Your task to perform on an android device: Go to wifi settings Image 0: 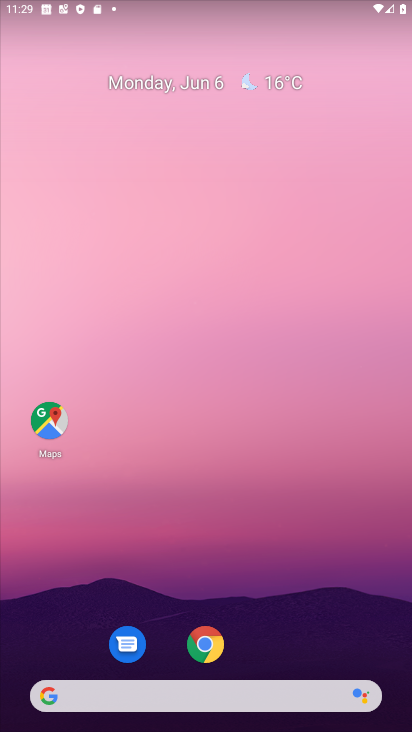
Step 0: drag from (289, 628) to (148, 171)
Your task to perform on an android device: Go to wifi settings Image 1: 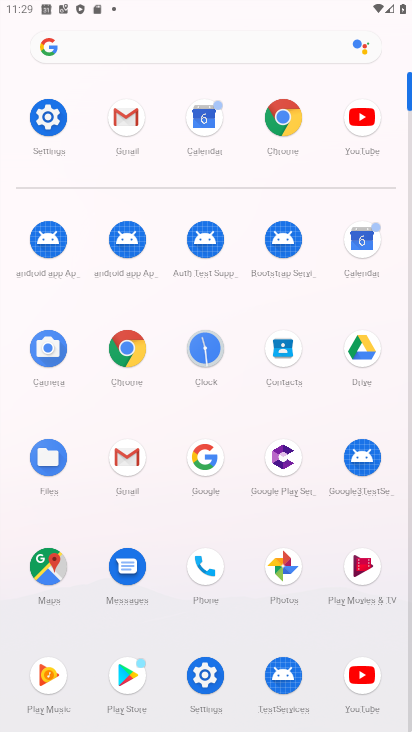
Step 1: click (43, 122)
Your task to perform on an android device: Go to wifi settings Image 2: 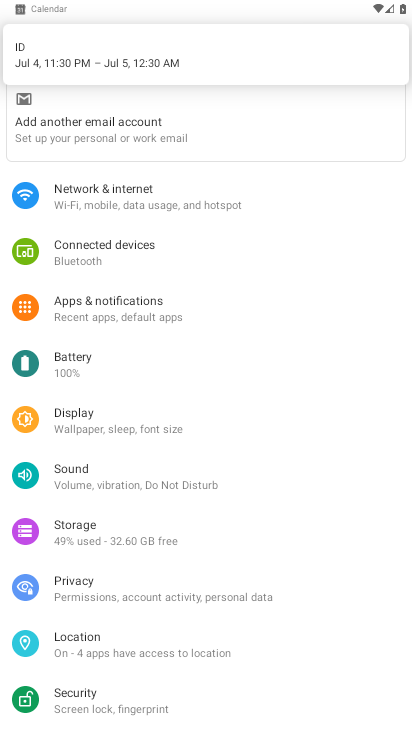
Step 2: click (151, 207)
Your task to perform on an android device: Go to wifi settings Image 3: 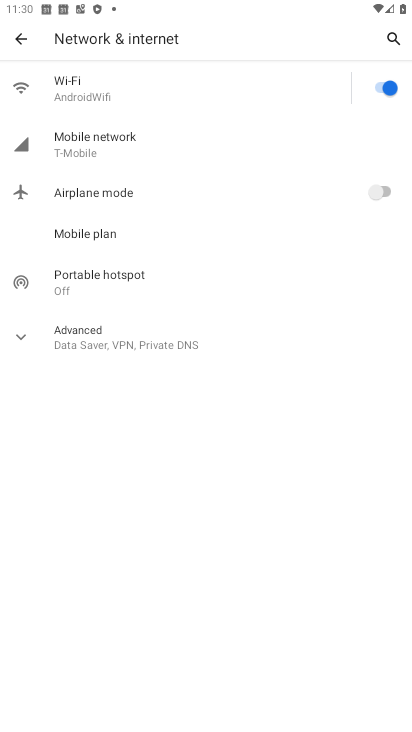
Step 3: click (127, 93)
Your task to perform on an android device: Go to wifi settings Image 4: 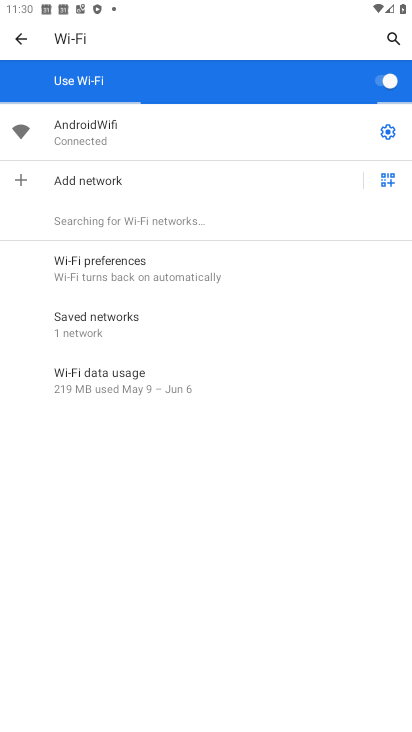
Step 4: task complete